Your task to perform on an android device: turn on notifications settings in the gmail app Image 0: 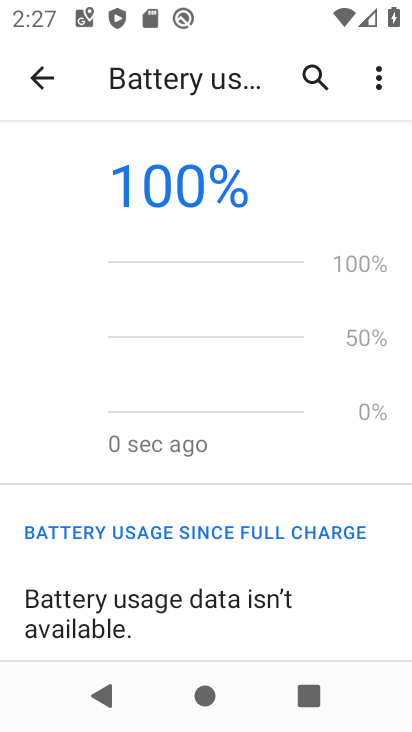
Step 0: press home button
Your task to perform on an android device: turn on notifications settings in the gmail app Image 1: 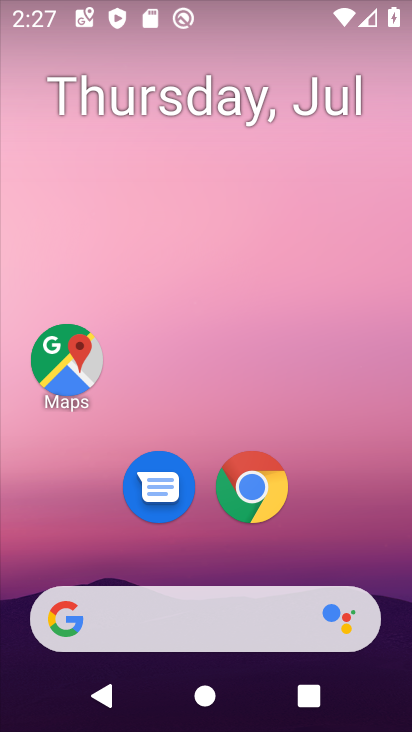
Step 1: drag from (365, 545) to (382, 159)
Your task to perform on an android device: turn on notifications settings in the gmail app Image 2: 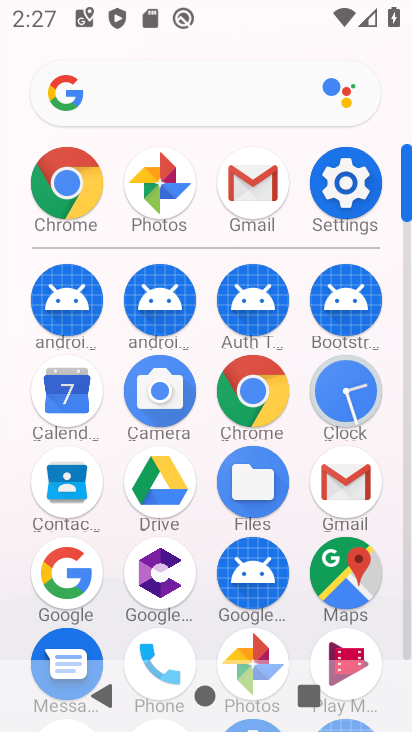
Step 2: click (351, 485)
Your task to perform on an android device: turn on notifications settings in the gmail app Image 3: 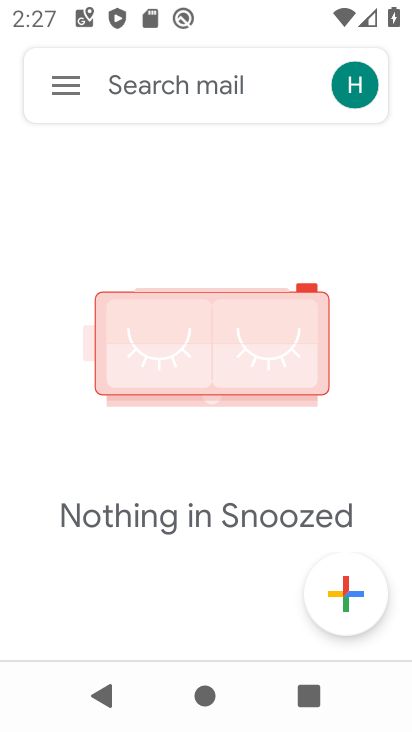
Step 3: click (67, 82)
Your task to perform on an android device: turn on notifications settings in the gmail app Image 4: 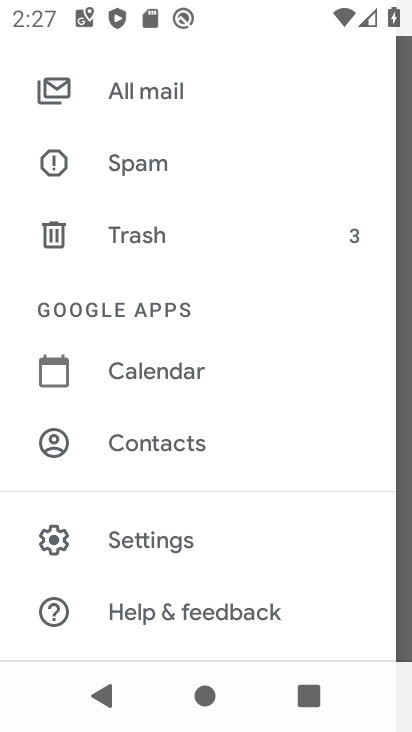
Step 4: drag from (264, 262) to (278, 386)
Your task to perform on an android device: turn on notifications settings in the gmail app Image 5: 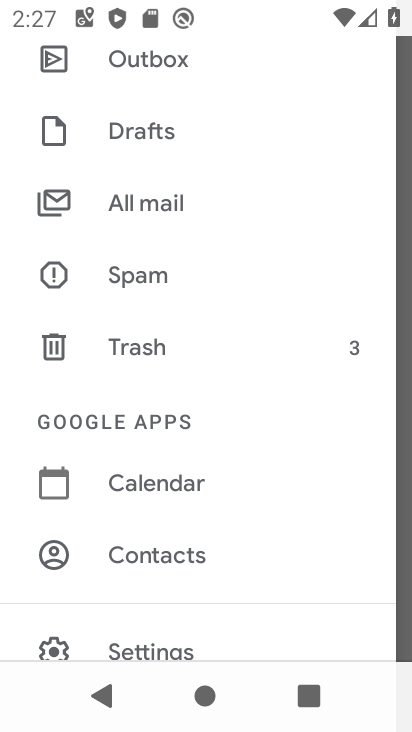
Step 5: drag from (287, 247) to (287, 377)
Your task to perform on an android device: turn on notifications settings in the gmail app Image 6: 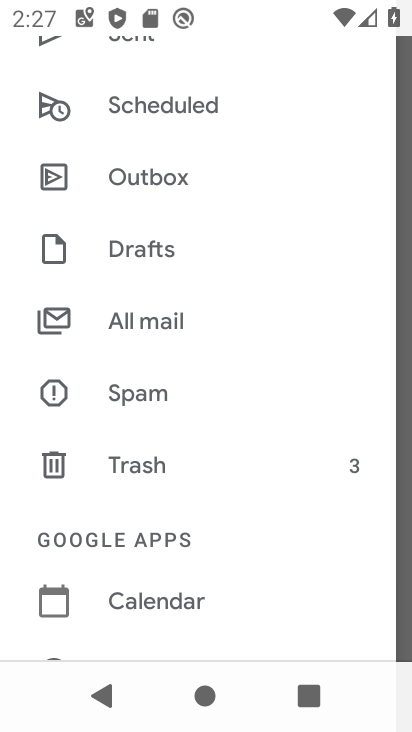
Step 6: drag from (291, 442) to (297, 331)
Your task to perform on an android device: turn on notifications settings in the gmail app Image 7: 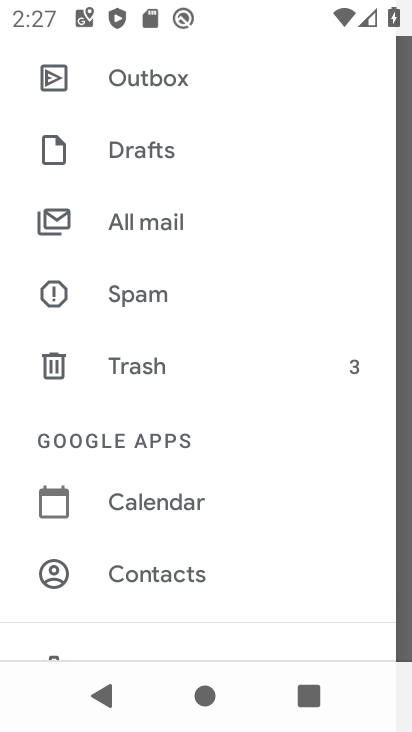
Step 7: drag from (291, 477) to (285, 302)
Your task to perform on an android device: turn on notifications settings in the gmail app Image 8: 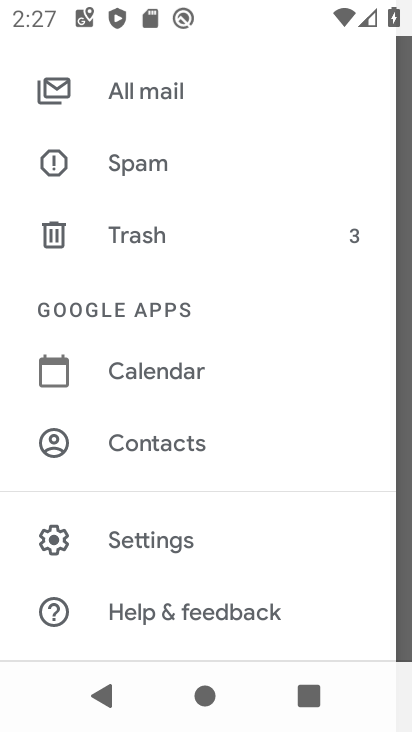
Step 8: drag from (284, 516) to (281, 351)
Your task to perform on an android device: turn on notifications settings in the gmail app Image 9: 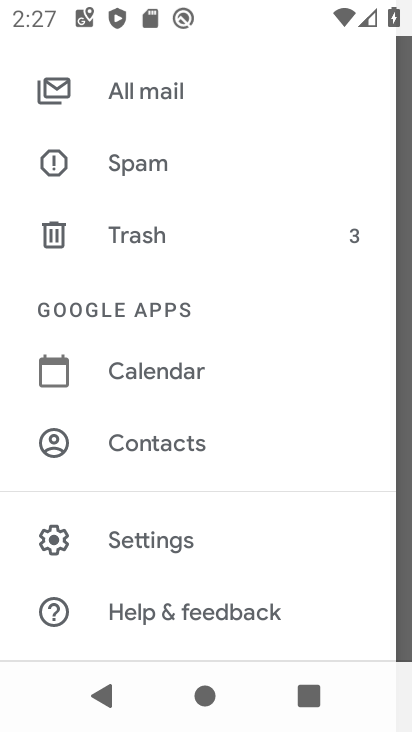
Step 9: click (241, 549)
Your task to perform on an android device: turn on notifications settings in the gmail app Image 10: 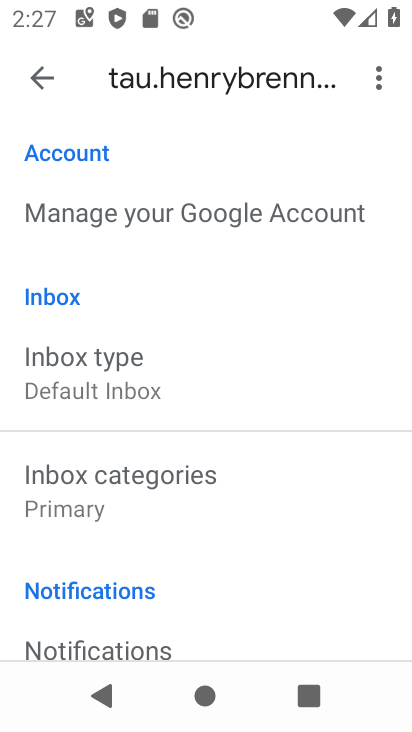
Step 10: drag from (320, 512) to (335, 429)
Your task to perform on an android device: turn on notifications settings in the gmail app Image 11: 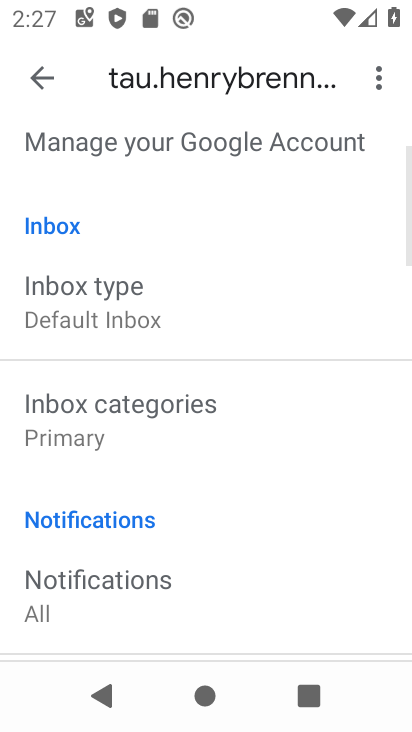
Step 11: drag from (329, 500) to (330, 384)
Your task to perform on an android device: turn on notifications settings in the gmail app Image 12: 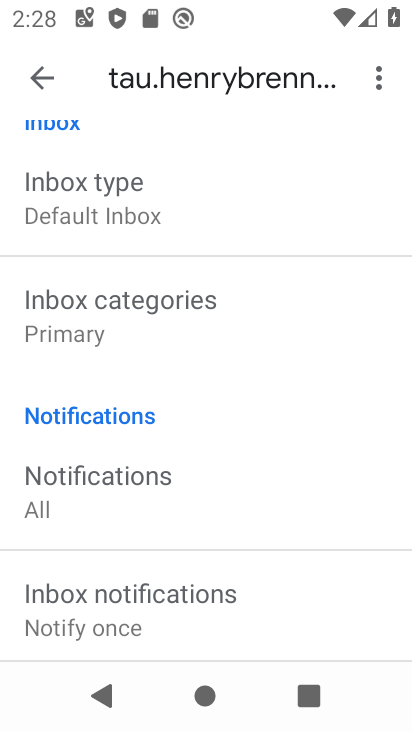
Step 12: drag from (317, 533) to (318, 426)
Your task to perform on an android device: turn on notifications settings in the gmail app Image 13: 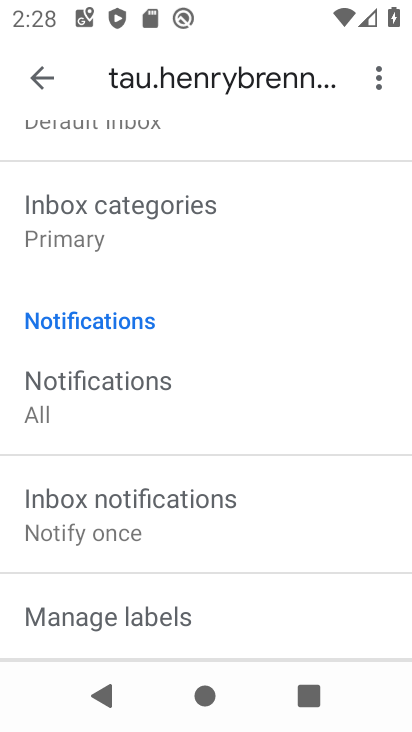
Step 13: drag from (318, 559) to (319, 434)
Your task to perform on an android device: turn on notifications settings in the gmail app Image 14: 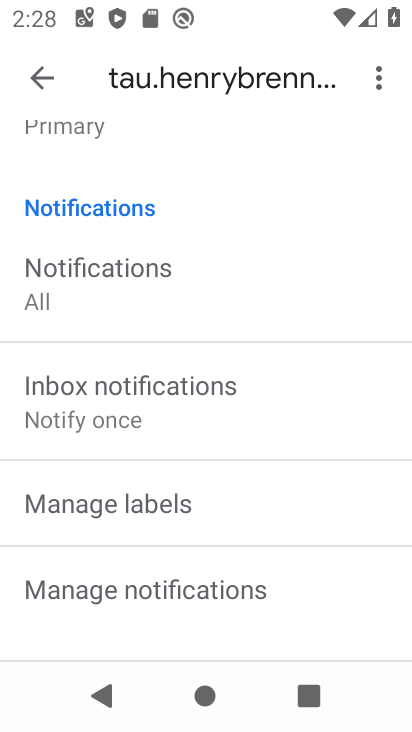
Step 14: drag from (329, 565) to (327, 454)
Your task to perform on an android device: turn on notifications settings in the gmail app Image 15: 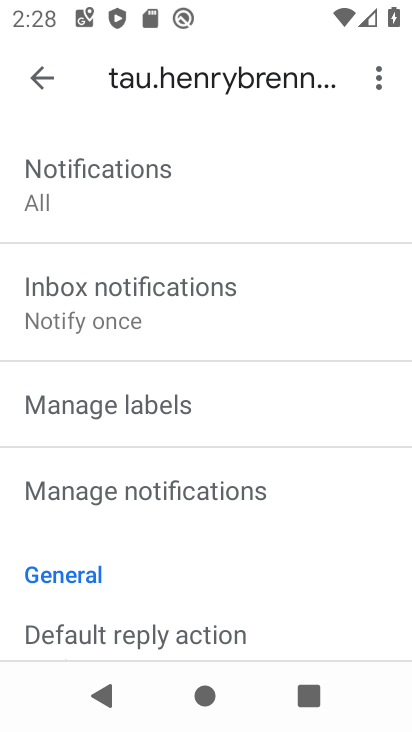
Step 15: drag from (334, 563) to (336, 434)
Your task to perform on an android device: turn on notifications settings in the gmail app Image 16: 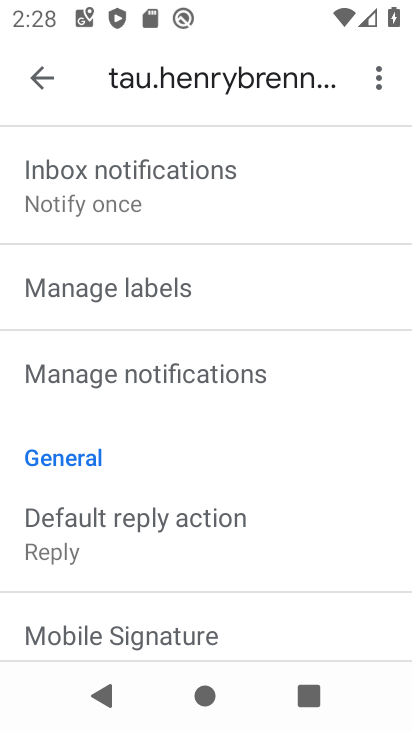
Step 16: drag from (332, 449) to (343, 348)
Your task to perform on an android device: turn on notifications settings in the gmail app Image 17: 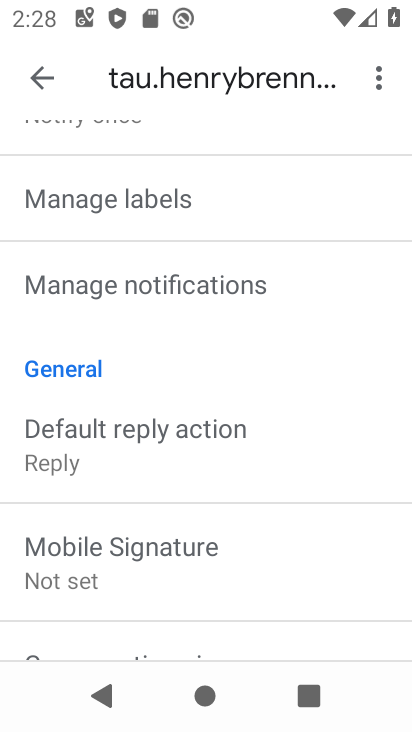
Step 17: drag from (354, 480) to (354, 384)
Your task to perform on an android device: turn on notifications settings in the gmail app Image 18: 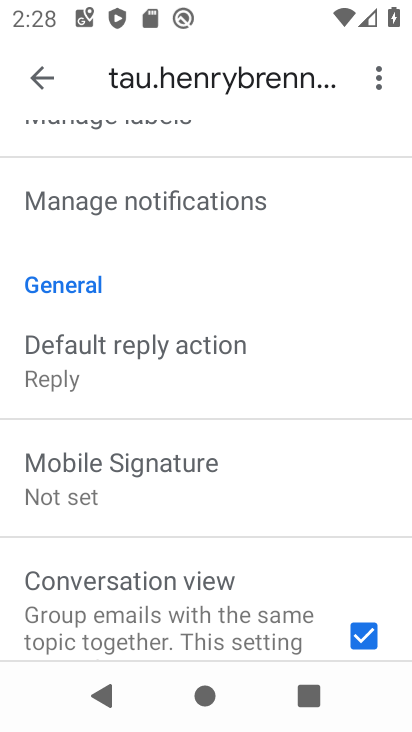
Step 18: drag from (310, 334) to (306, 440)
Your task to perform on an android device: turn on notifications settings in the gmail app Image 19: 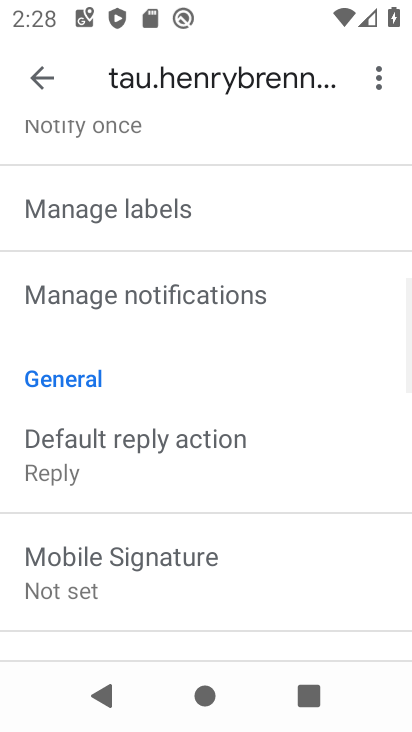
Step 19: click (275, 304)
Your task to perform on an android device: turn on notifications settings in the gmail app Image 20: 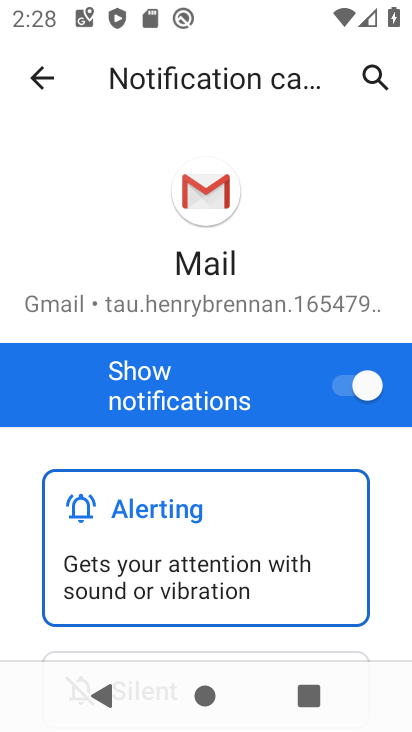
Step 20: task complete